Your task to perform on an android device: Show me the alarms in the clock app Image 0: 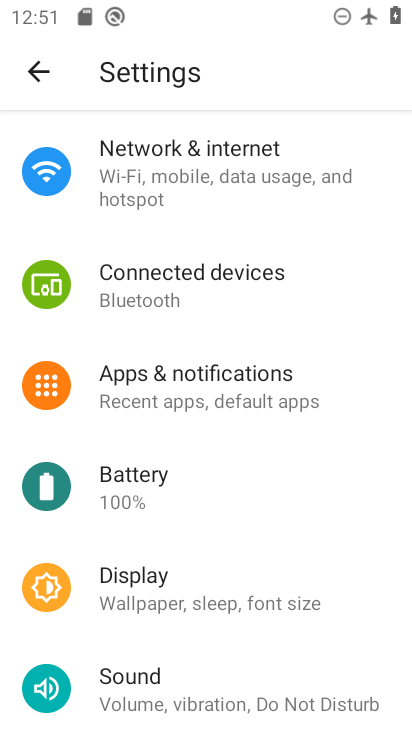
Step 0: press home button
Your task to perform on an android device: Show me the alarms in the clock app Image 1: 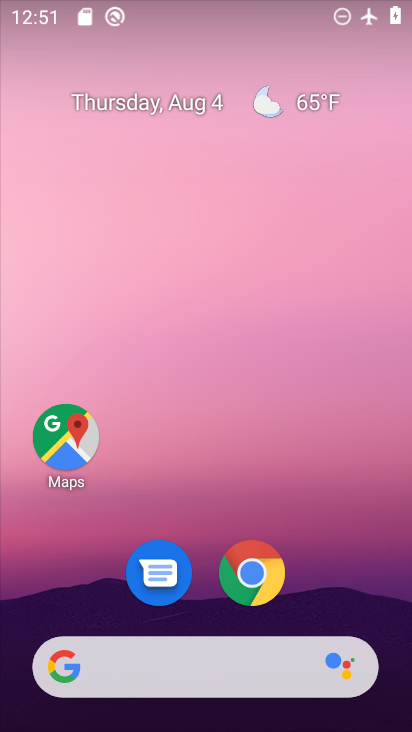
Step 1: drag from (340, 575) to (317, 123)
Your task to perform on an android device: Show me the alarms in the clock app Image 2: 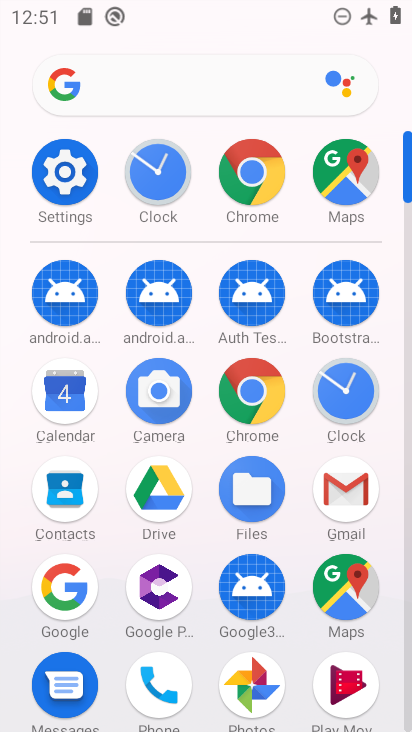
Step 2: click (354, 396)
Your task to perform on an android device: Show me the alarms in the clock app Image 3: 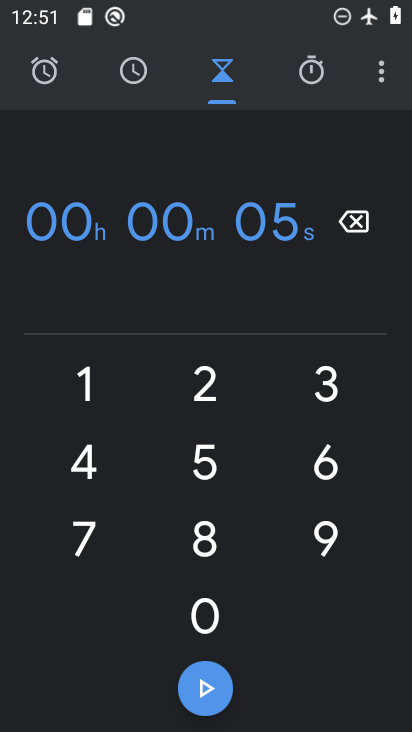
Step 3: click (57, 73)
Your task to perform on an android device: Show me the alarms in the clock app Image 4: 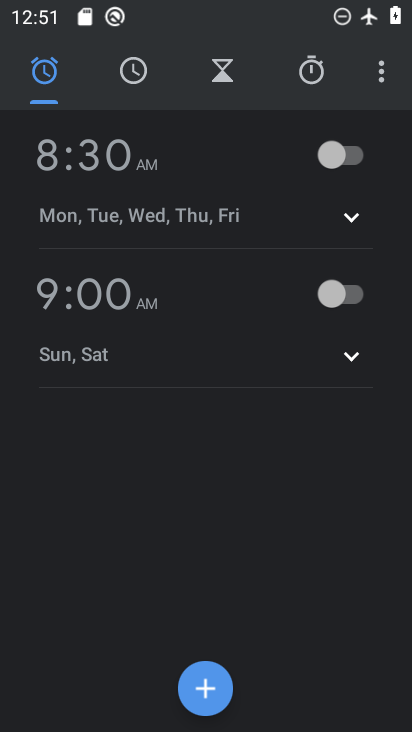
Step 4: click (56, 75)
Your task to perform on an android device: Show me the alarms in the clock app Image 5: 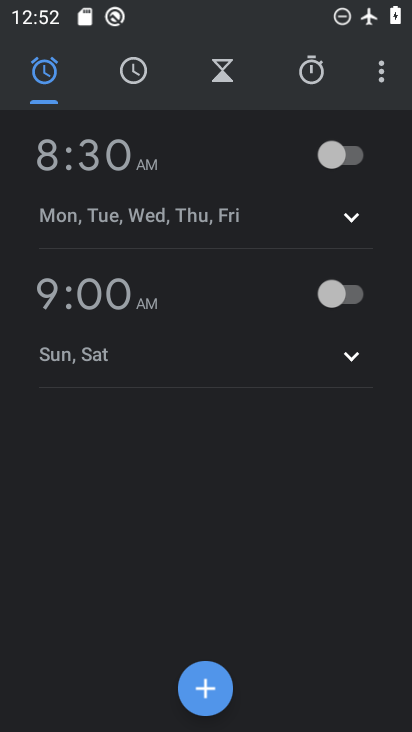
Step 5: task complete